Your task to perform on an android device: Search for Mexican restaurants on Maps Image 0: 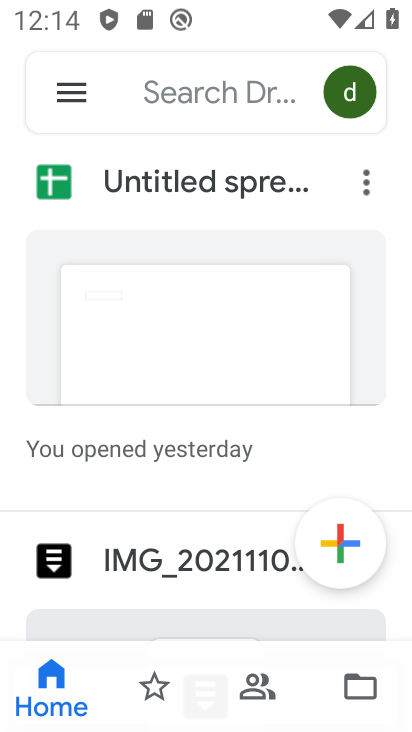
Step 0: press home button
Your task to perform on an android device: Search for Mexican restaurants on Maps Image 1: 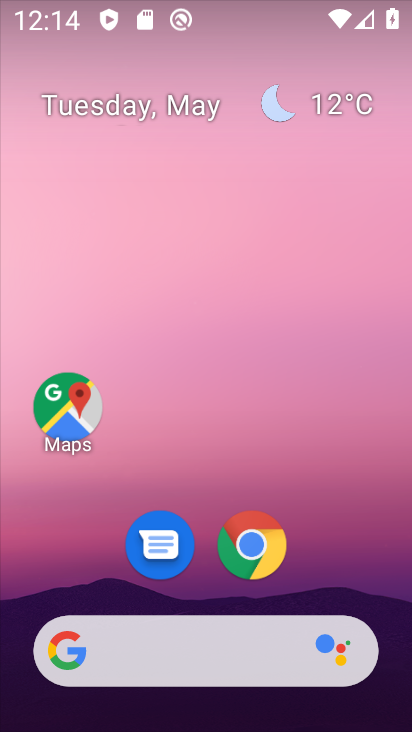
Step 1: drag from (381, 594) to (298, 140)
Your task to perform on an android device: Search for Mexican restaurants on Maps Image 2: 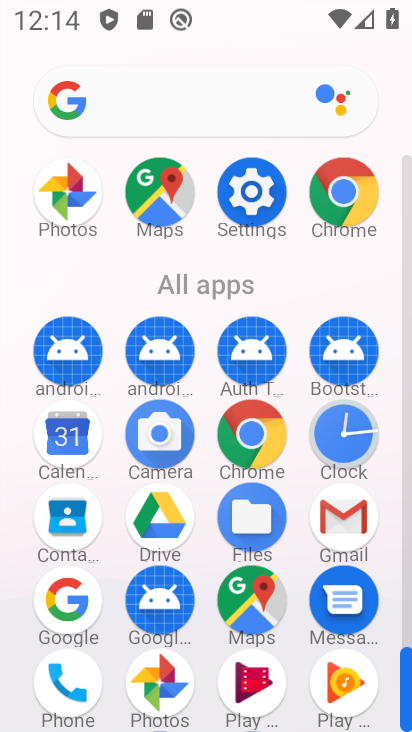
Step 2: click (251, 604)
Your task to perform on an android device: Search for Mexican restaurants on Maps Image 3: 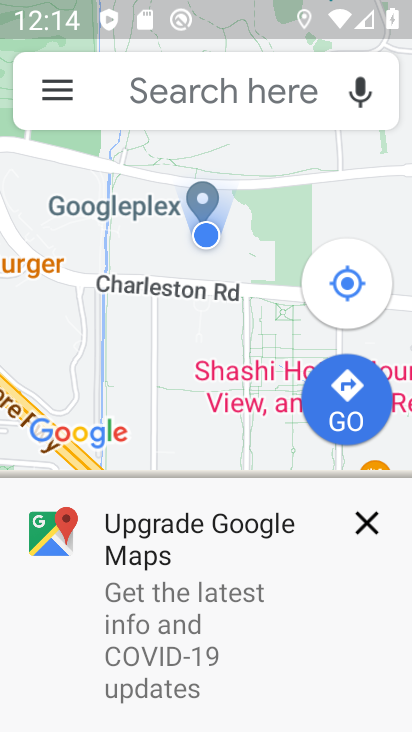
Step 3: click (187, 107)
Your task to perform on an android device: Search for Mexican restaurants on Maps Image 4: 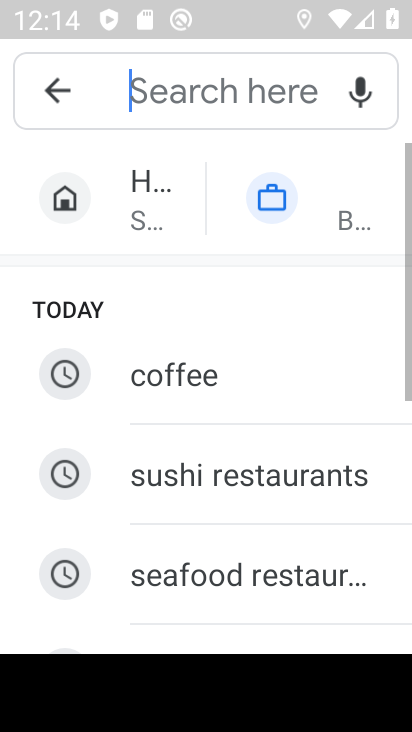
Step 4: drag from (227, 546) to (176, 220)
Your task to perform on an android device: Search for Mexican restaurants on Maps Image 5: 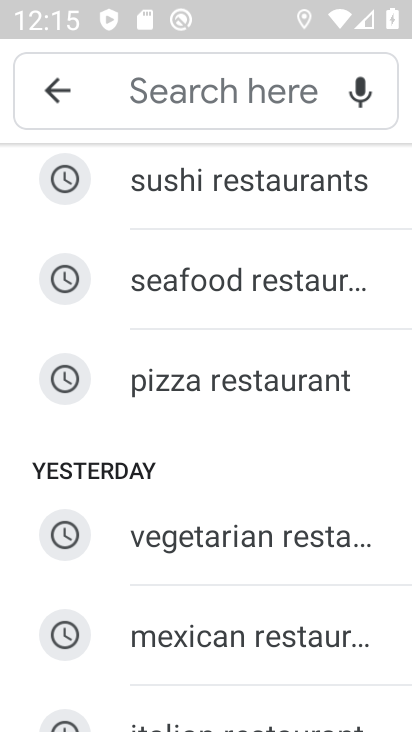
Step 5: drag from (206, 589) to (182, 415)
Your task to perform on an android device: Search for Mexican restaurants on Maps Image 6: 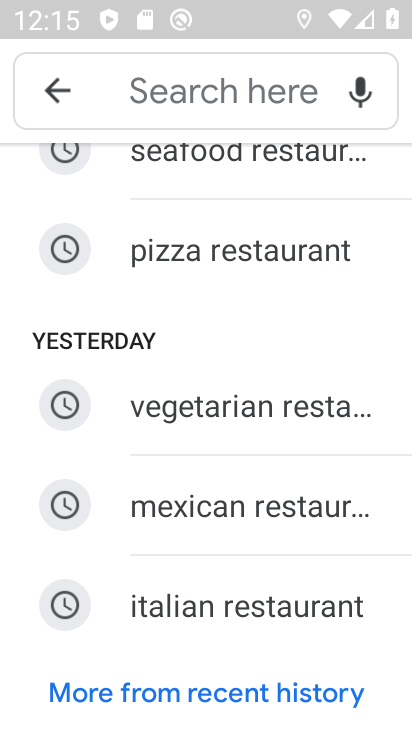
Step 6: click (204, 508)
Your task to perform on an android device: Search for Mexican restaurants on Maps Image 7: 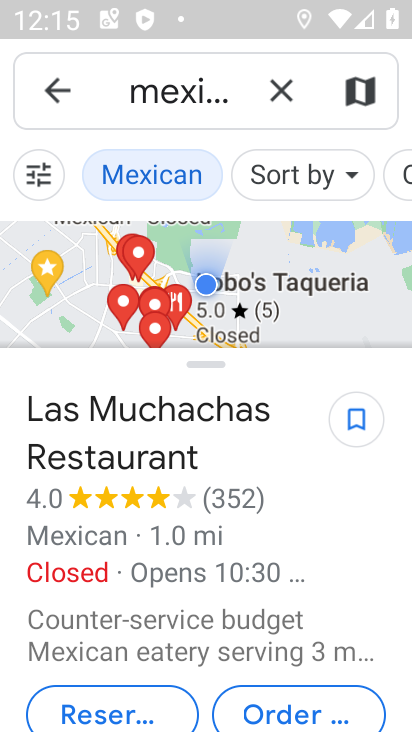
Step 7: task complete